Your task to perform on an android device: turn vacation reply on in the gmail app Image 0: 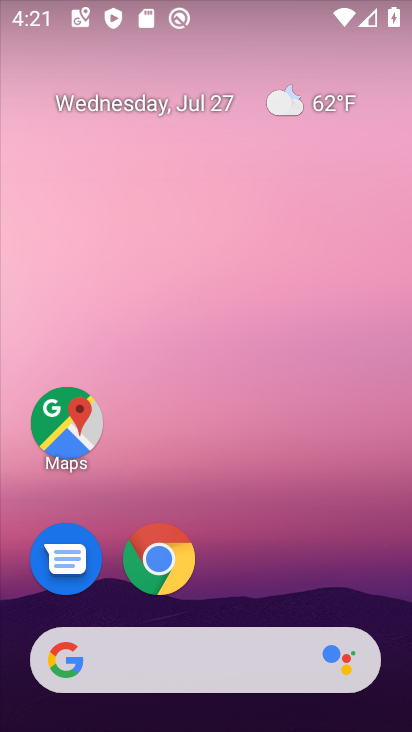
Step 0: drag from (228, 586) to (279, 46)
Your task to perform on an android device: turn vacation reply on in the gmail app Image 1: 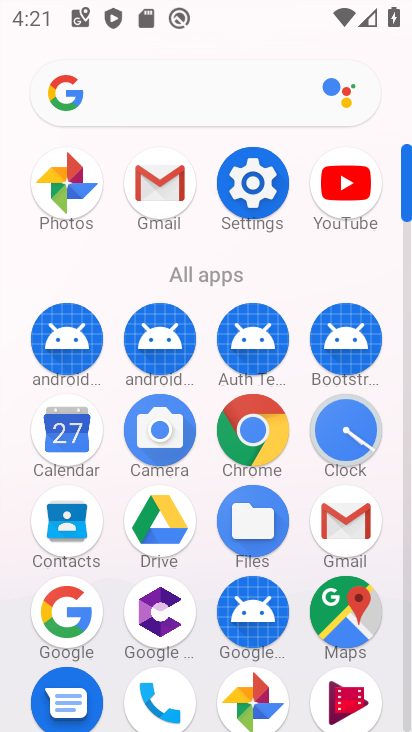
Step 1: click (166, 195)
Your task to perform on an android device: turn vacation reply on in the gmail app Image 2: 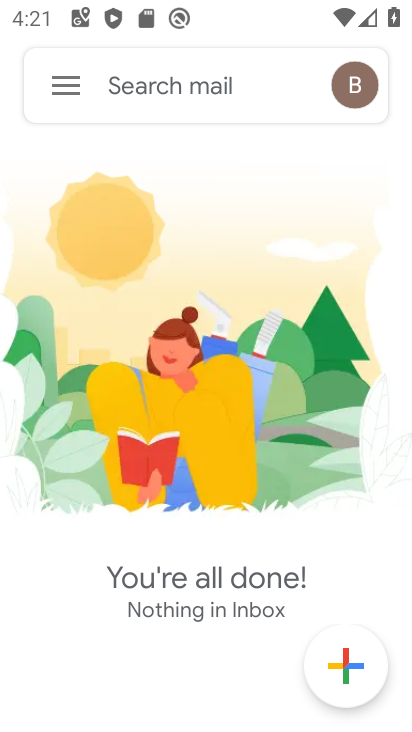
Step 2: click (66, 78)
Your task to perform on an android device: turn vacation reply on in the gmail app Image 3: 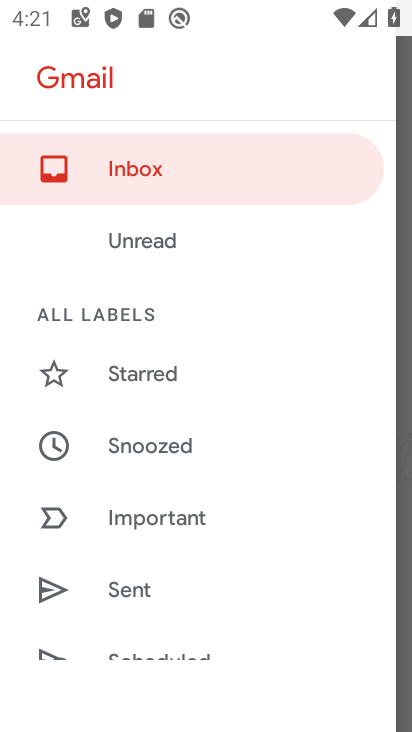
Step 3: drag from (194, 645) to (263, 151)
Your task to perform on an android device: turn vacation reply on in the gmail app Image 4: 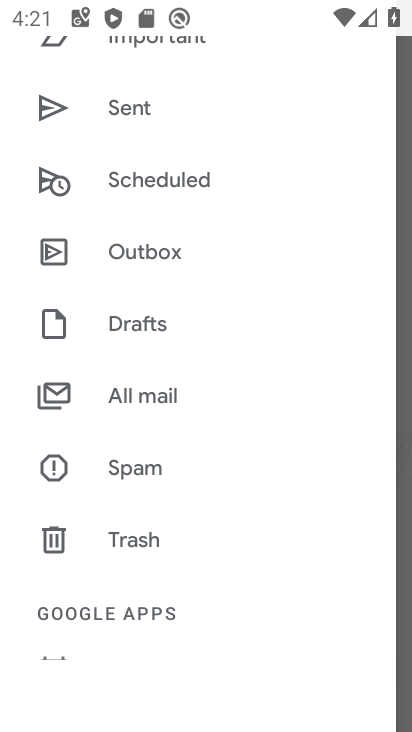
Step 4: drag from (115, 610) to (168, 33)
Your task to perform on an android device: turn vacation reply on in the gmail app Image 5: 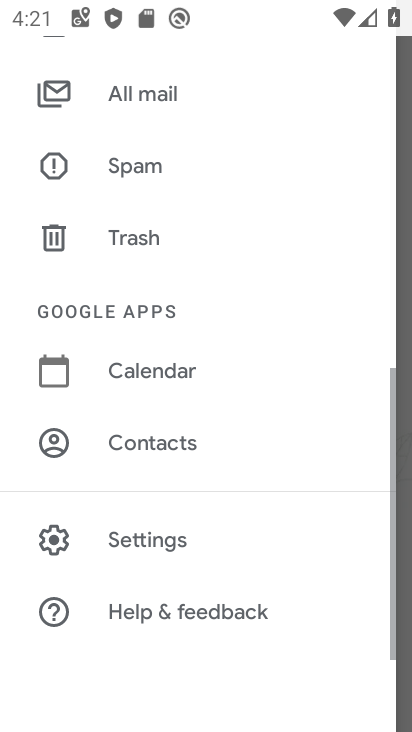
Step 5: click (150, 531)
Your task to perform on an android device: turn vacation reply on in the gmail app Image 6: 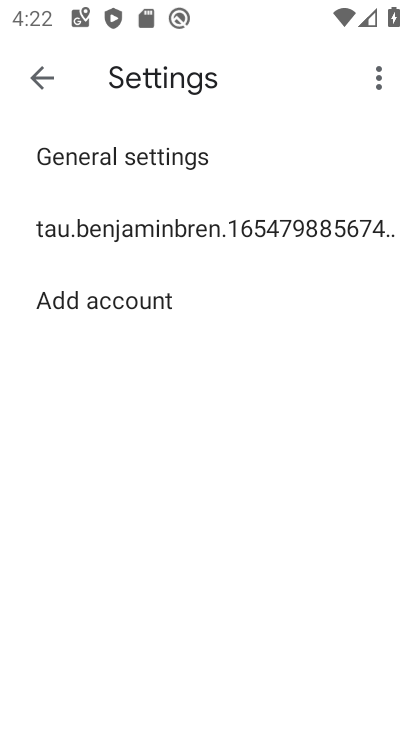
Step 6: click (150, 231)
Your task to perform on an android device: turn vacation reply on in the gmail app Image 7: 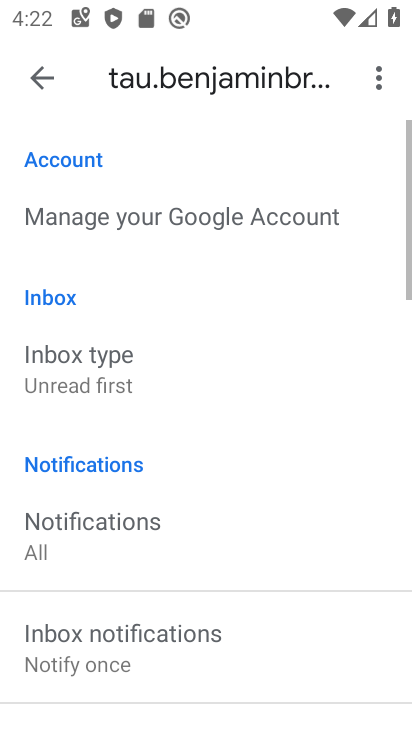
Step 7: drag from (149, 672) to (240, 163)
Your task to perform on an android device: turn vacation reply on in the gmail app Image 8: 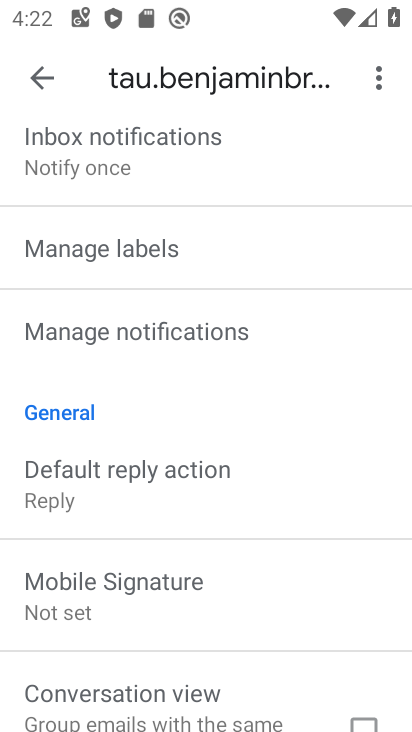
Step 8: drag from (158, 657) to (252, 98)
Your task to perform on an android device: turn vacation reply on in the gmail app Image 9: 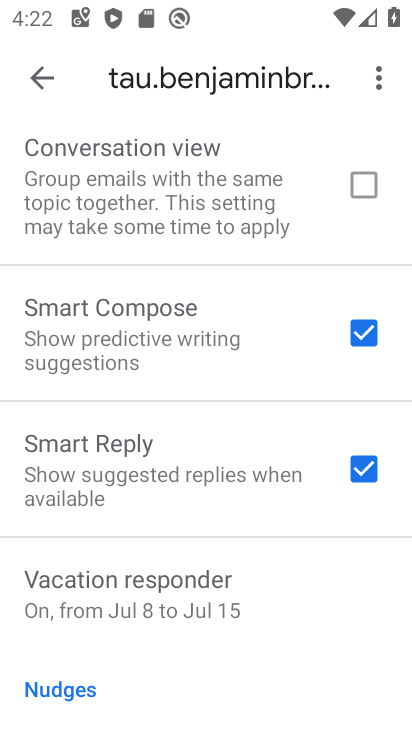
Step 9: click (129, 581)
Your task to perform on an android device: turn vacation reply on in the gmail app Image 10: 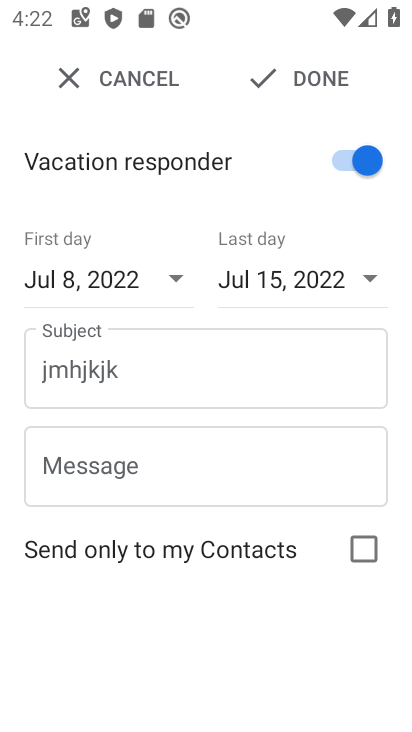
Step 10: task complete